Your task to perform on an android device: toggle improve location accuracy Image 0: 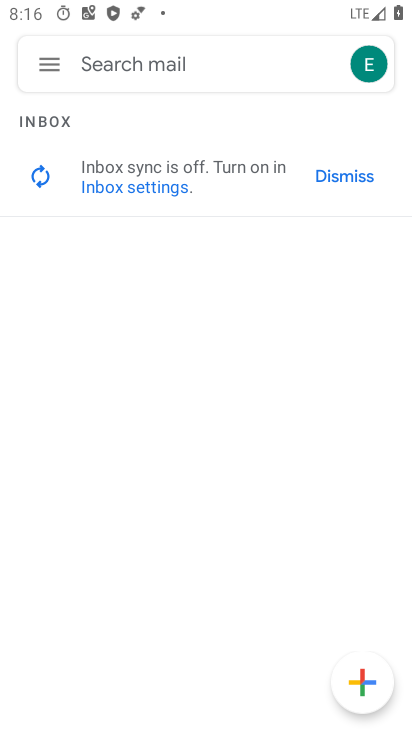
Step 0: press home button
Your task to perform on an android device: toggle improve location accuracy Image 1: 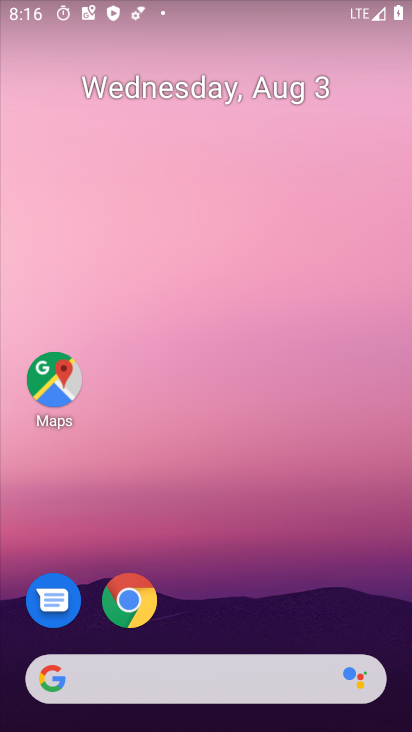
Step 1: drag from (327, 522) to (315, 2)
Your task to perform on an android device: toggle improve location accuracy Image 2: 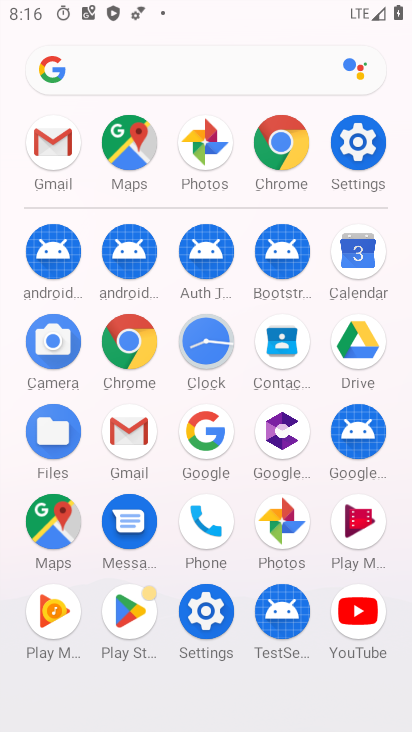
Step 2: click (361, 168)
Your task to perform on an android device: toggle improve location accuracy Image 3: 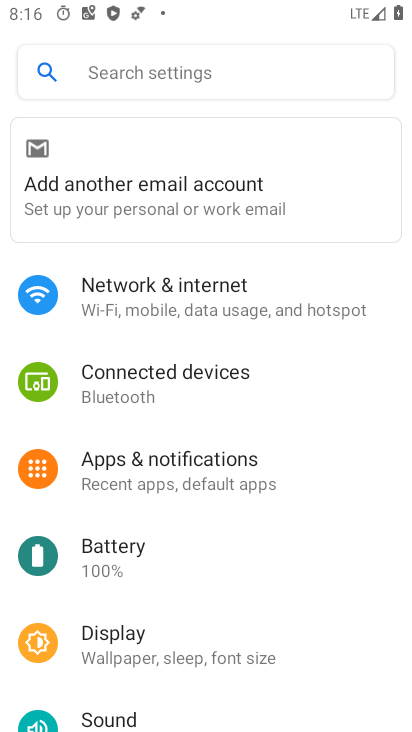
Step 3: drag from (189, 557) to (216, 411)
Your task to perform on an android device: toggle improve location accuracy Image 4: 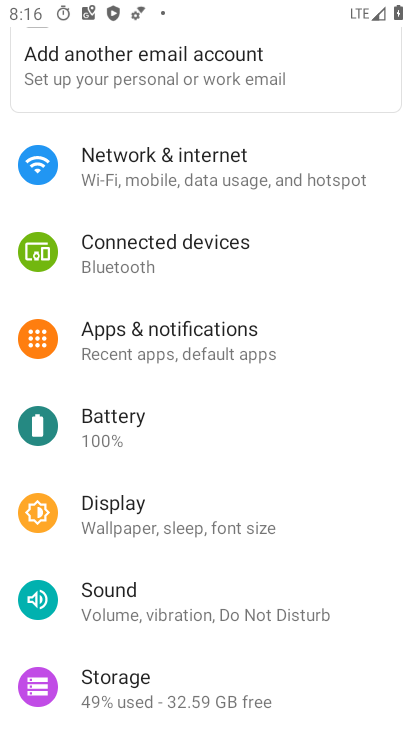
Step 4: drag from (163, 618) to (227, 300)
Your task to perform on an android device: toggle improve location accuracy Image 5: 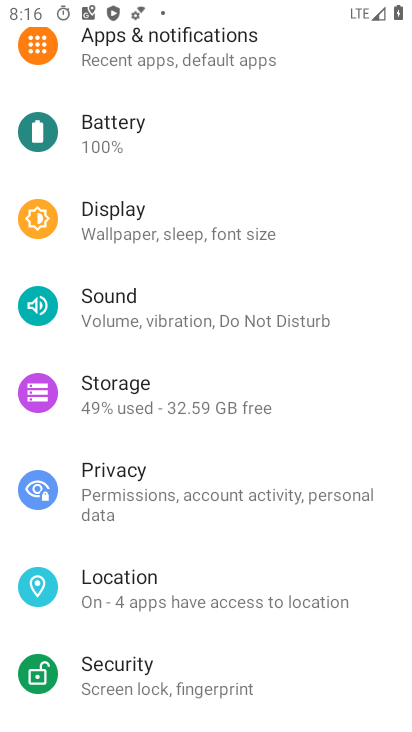
Step 5: click (121, 582)
Your task to perform on an android device: toggle improve location accuracy Image 6: 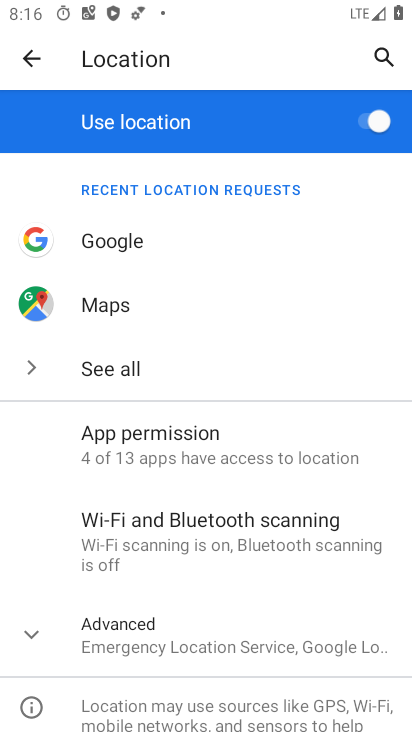
Step 6: click (105, 633)
Your task to perform on an android device: toggle improve location accuracy Image 7: 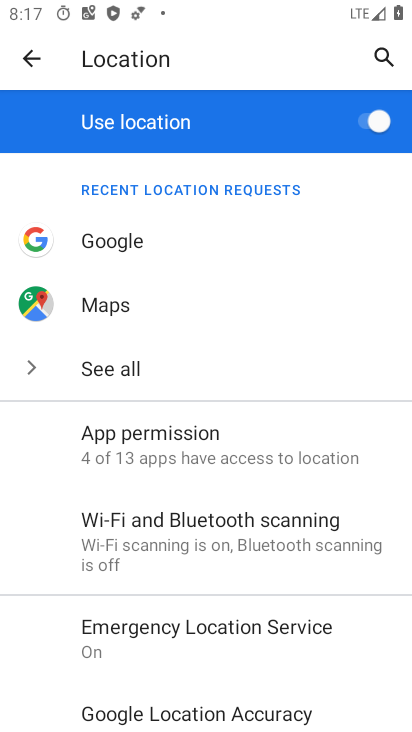
Step 7: click (129, 702)
Your task to perform on an android device: toggle improve location accuracy Image 8: 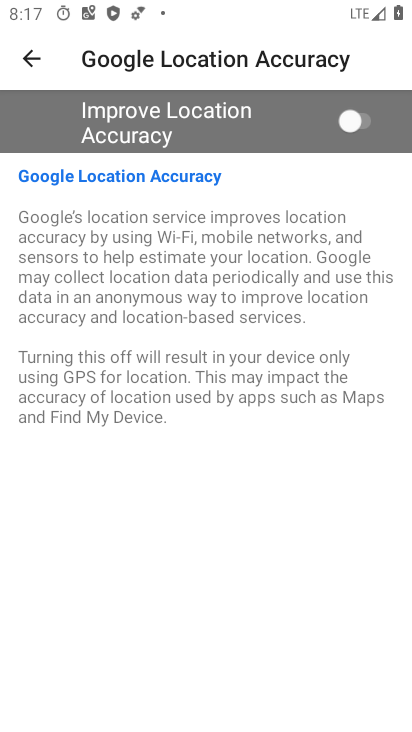
Step 8: click (393, 116)
Your task to perform on an android device: toggle improve location accuracy Image 9: 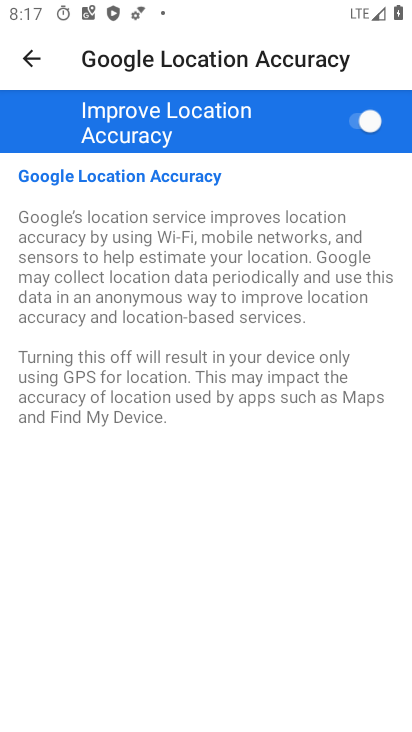
Step 9: task complete